Your task to perform on an android device: open device folders in google photos Image 0: 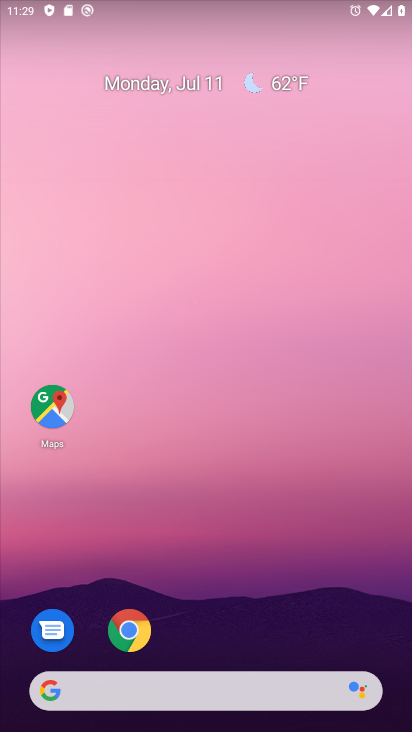
Step 0: drag from (257, 610) to (229, 0)
Your task to perform on an android device: open device folders in google photos Image 1: 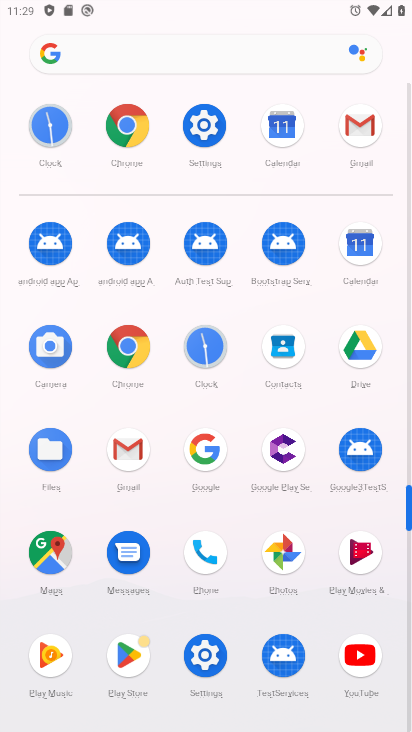
Step 1: click (284, 553)
Your task to perform on an android device: open device folders in google photos Image 2: 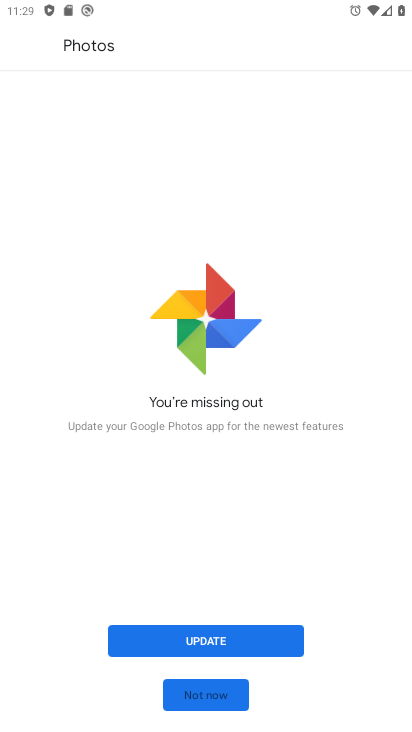
Step 2: click (212, 696)
Your task to perform on an android device: open device folders in google photos Image 3: 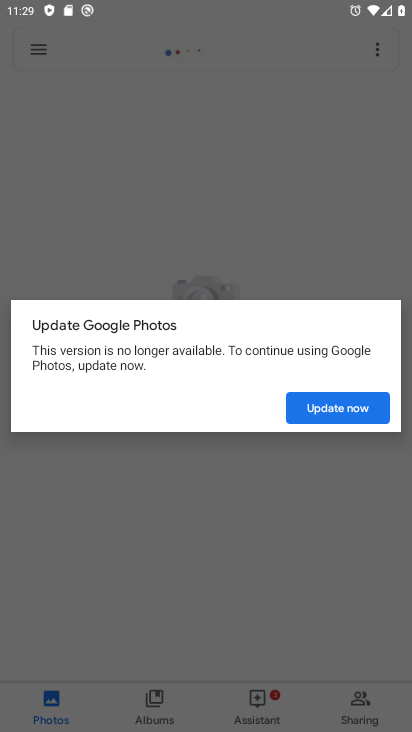
Step 3: click (354, 402)
Your task to perform on an android device: open device folders in google photos Image 4: 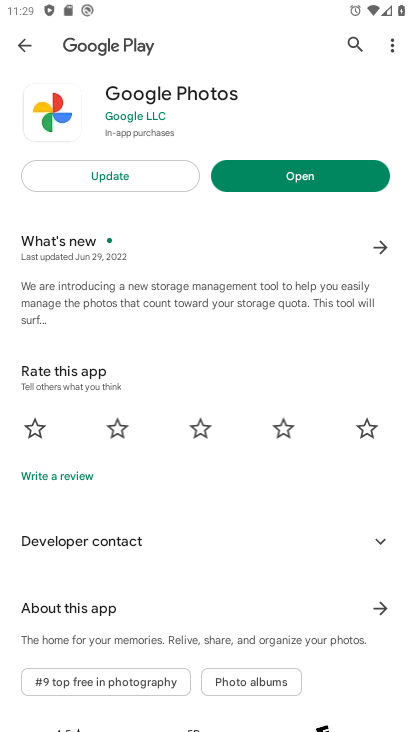
Step 4: click (322, 170)
Your task to perform on an android device: open device folders in google photos Image 5: 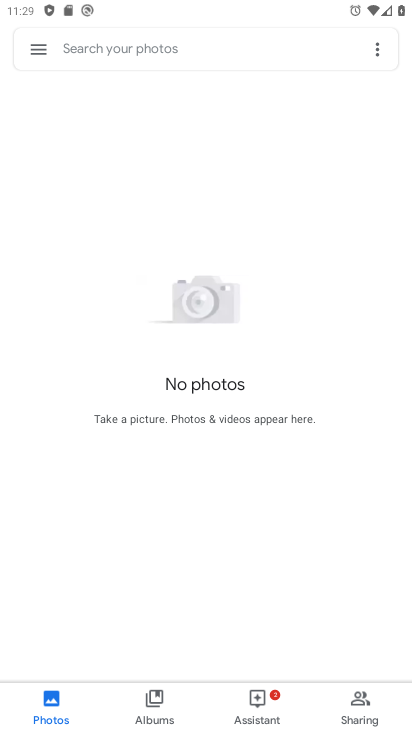
Step 5: click (39, 49)
Your task to perform on an android device: open device folders in google photos Image 6: 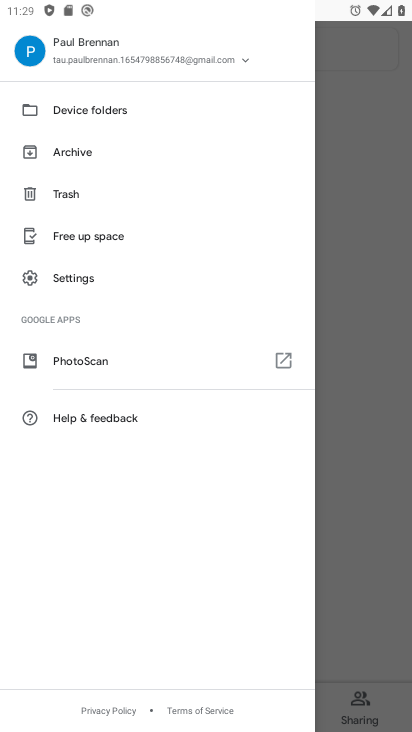
Step 6: click (61, 108)
Your task to perform on an android device: open device folders in google photos Image 7: 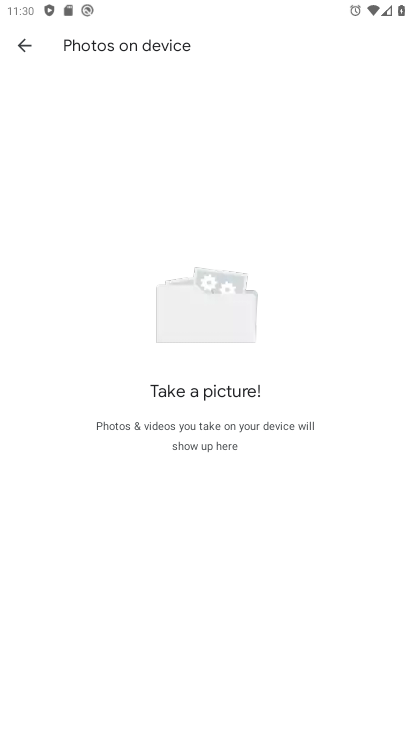
Step 7: task complete